Your task to perform on an android device: manage bookmarks in the chrome app Image 0: 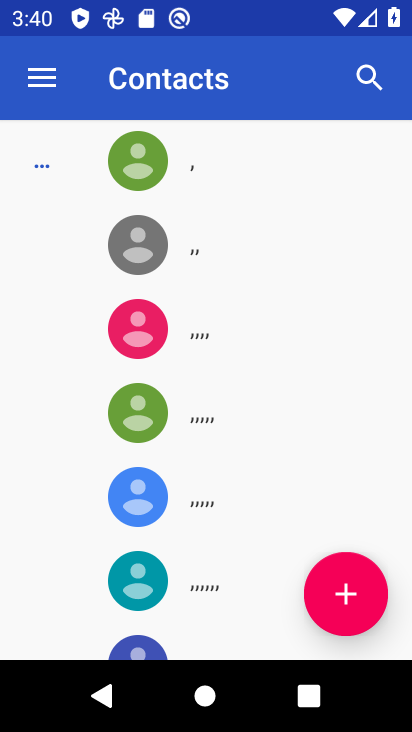
Step 0: press back button
Your task to perform on an android device: manage bookmarks in the chrome app Image 1: 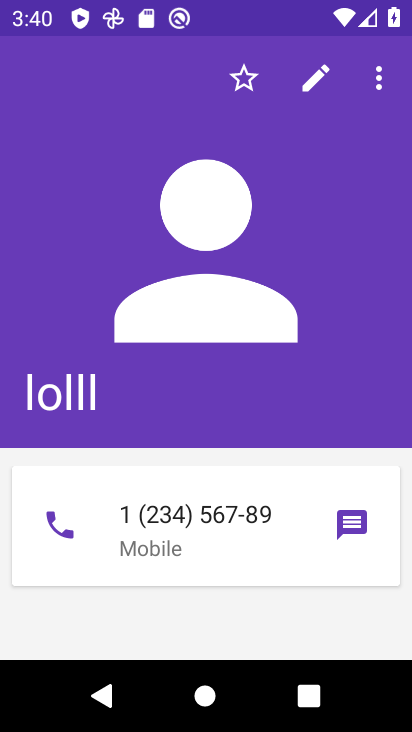
Step 1: press back button
Your task to perform on an android device: manage bookmarks in the chrome app Image 2: 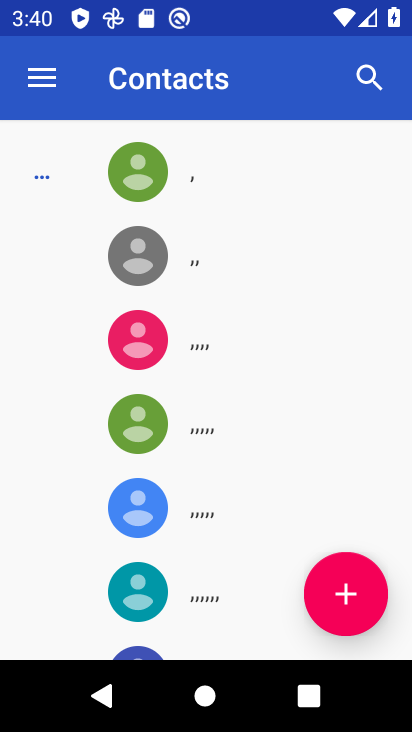
Step 2: press home button
Your task to perform on an android device: manage bookmarks in the chrome app Image 3: 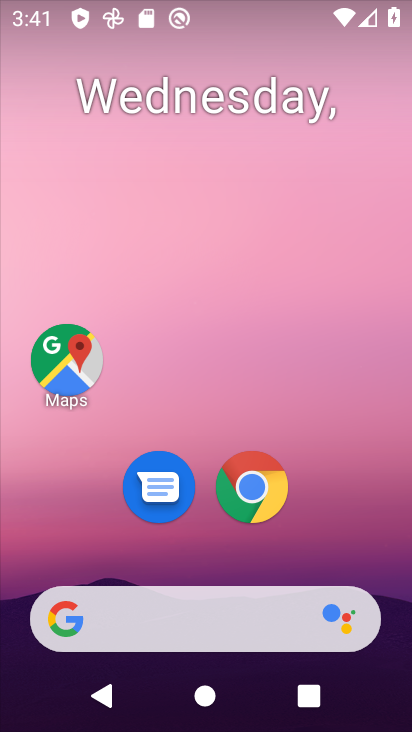
Step 3: drag from (379, 532) to (366, 273)
Your task to perform on an android device: manage bookmarks in the chrome app Image 4: 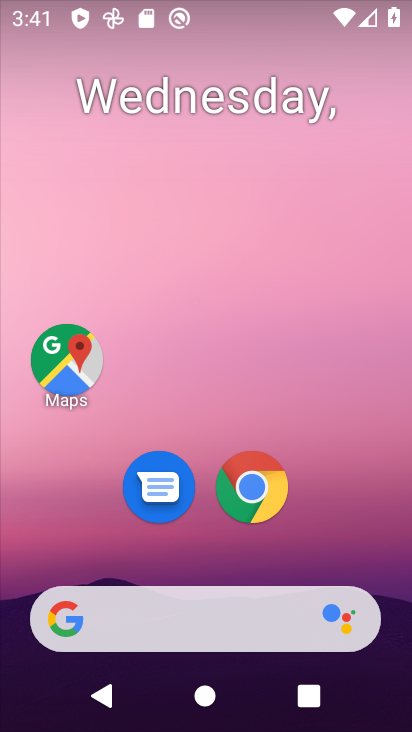
Step 4: drag from (376, 525) to (384, 174)
Your task to perform on an android device: manage bookmarks in the chrome app Image 5: 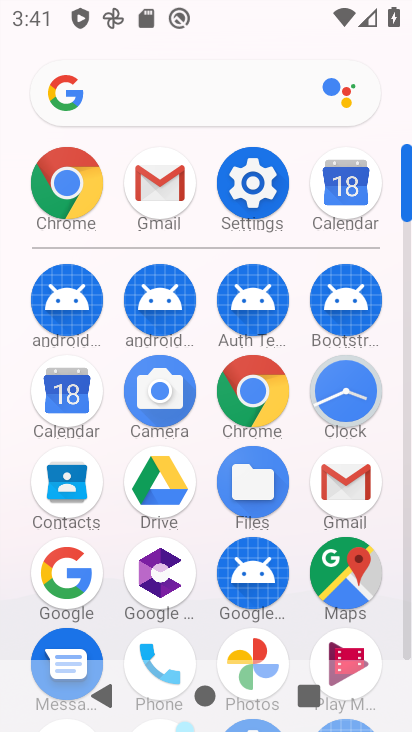
Step 5: click (269, 391)
Your task to perform on an android device: manage bookmarks in the chrome app Image 6: 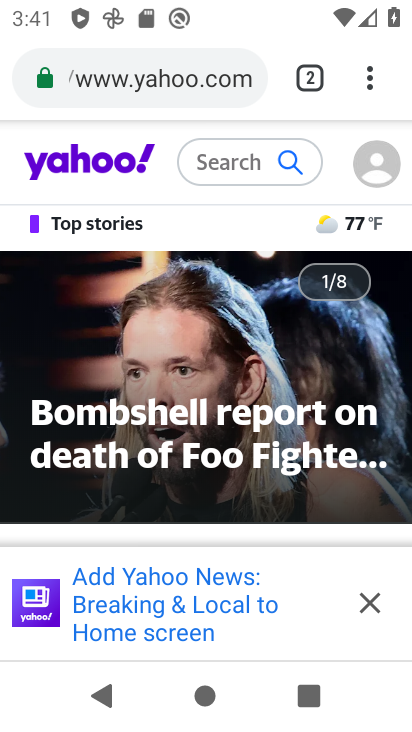
Step 6: click (371, 86)
Your task to perform on an android device: manage bookmarks in the chrome app Image 7: 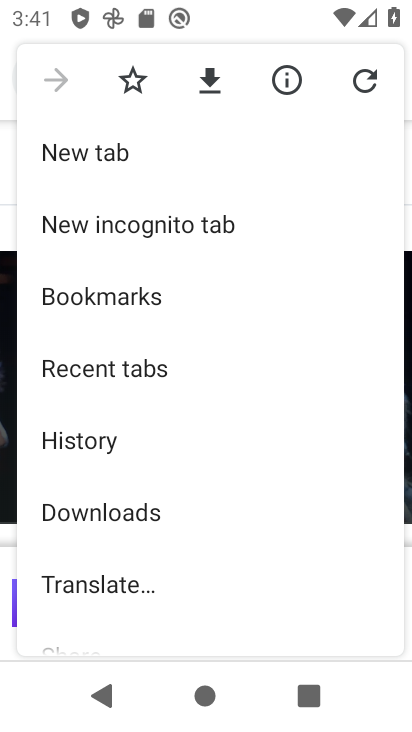
Step 7: drag from (289, 546) to (313, 427)
Your task to perform on an android device: manage bookmarks in the chrome app Image 8: 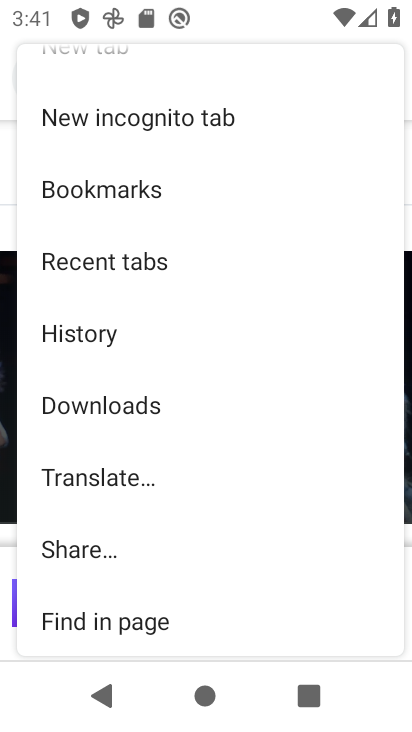
Step 8: drag from (313, 532) to (314, 379)
Your task to perform on an android device: manage bookmarks in the chrome app Image 9: 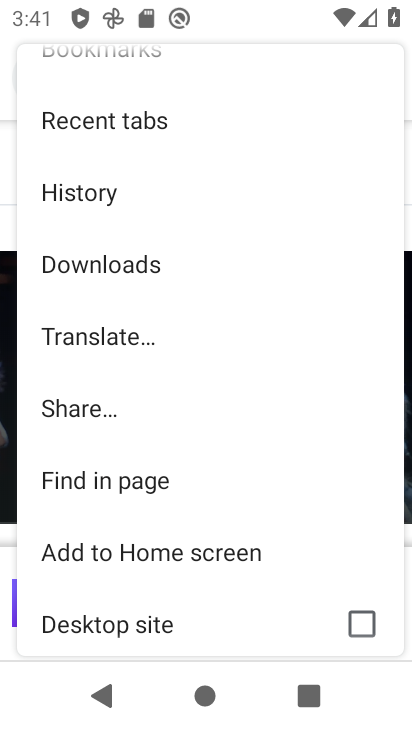
Step 9: drag from (296, 561) to (286, 455)
Your task to perform on an android device: manage bookmarks in the chrome app Image 10: 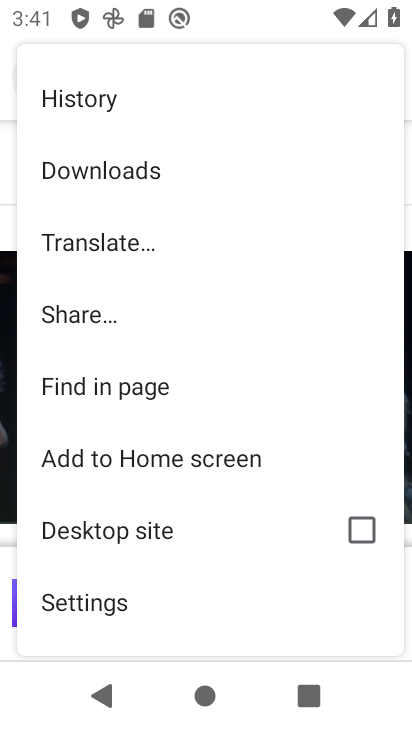
Step 10: drag from (289, 310) to (274, 528)
Your task to perform on an android device: manage bookmarks in the chrome app Image 11: 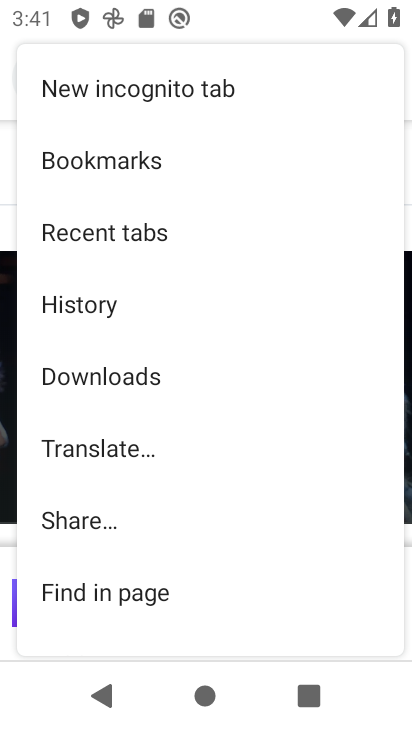
Step 11: drag from (252, 341) to (242, 436)
Your task to perform on an android device: manage bookmarks in the chrome app Image 12: 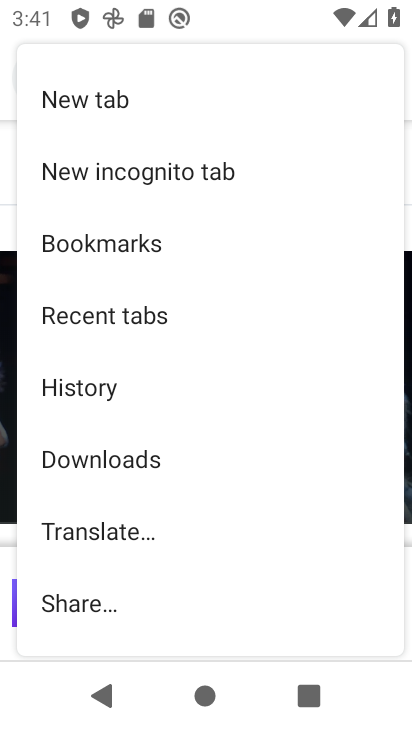
Step 12: click (136, 244)
Your task to perform on an android device: manage bookmarks in the chrome app Image 13: 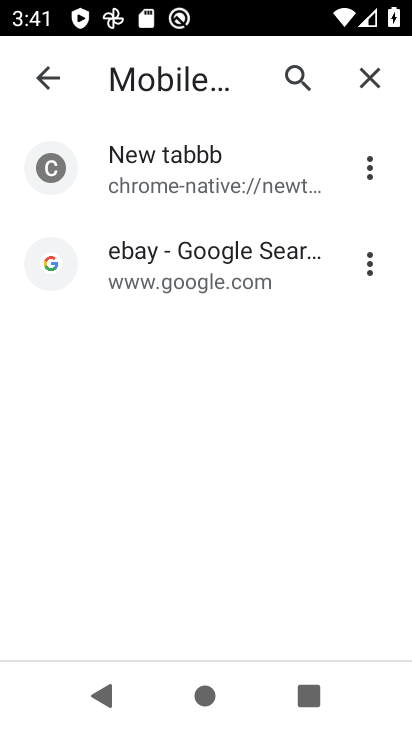
Step 13: click (371, 172)
Your task to perform on an android device: manage bookmarks in the chrome app Image 14: 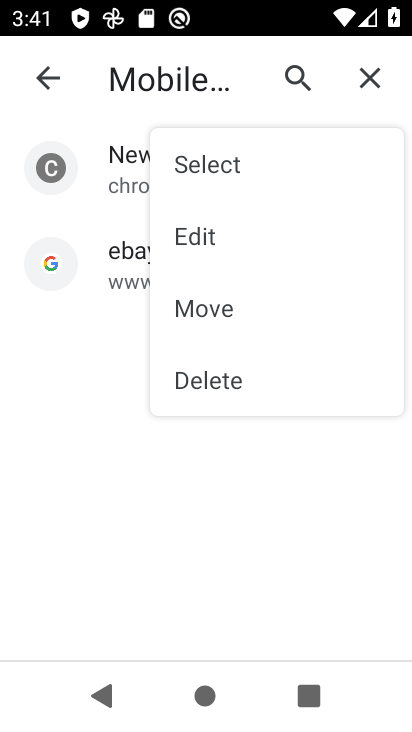
Step 14: click (219, 234)
Your task to perform on an android device: manage bookmarks in the chrome app Image 15: 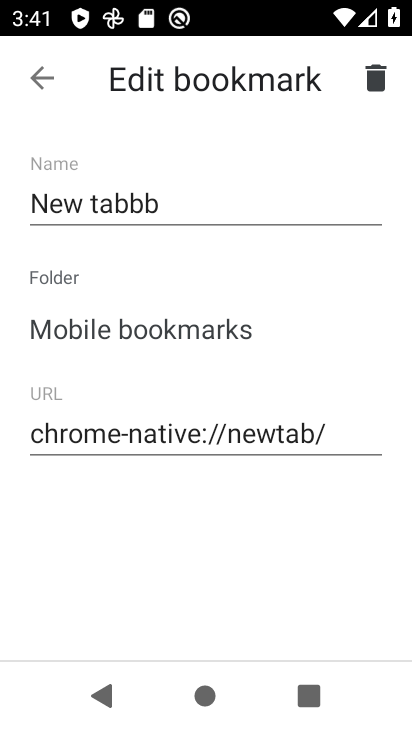
Step 15: click (225, 214)
Your task to perform on an android device: manage bookmarks in the chrome app Image 16: 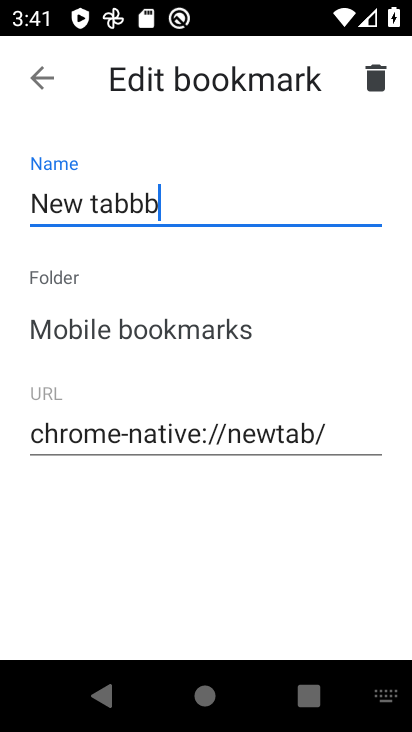
Step 16: type "bbbb"
Your task to perform on an android device: manage bookmarks in the chrome app Image 17: 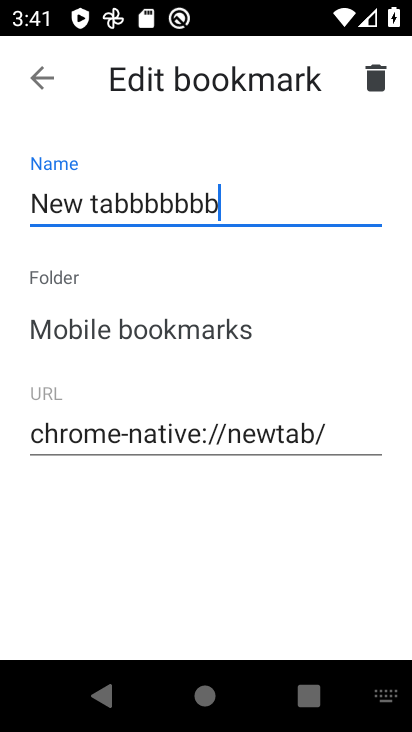
Step 17: click (44, 88)
Your task to perform on an android device: manage bookmarks in the chrome app Image 18: 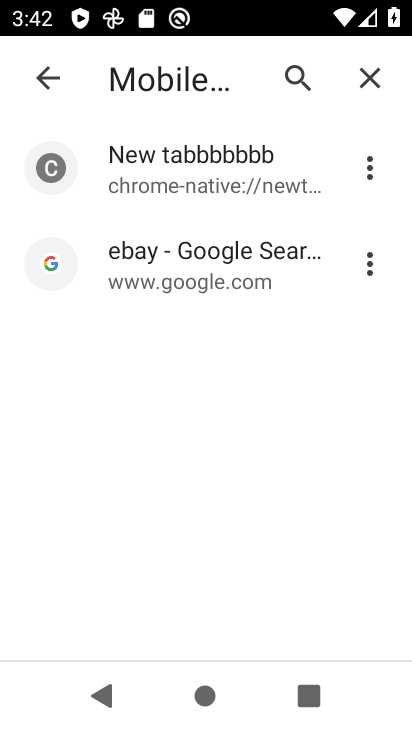
Step 18: task complete